Your task to perform on an android device: change the upload size in google photos Image 0: 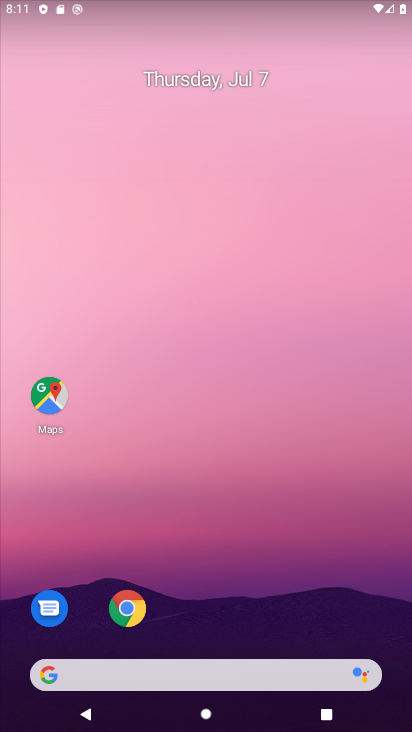
Step 0: drag from (171, 662) to (176, 90)
Your task to perform on an android device: change the upload size in google photos Image 1: 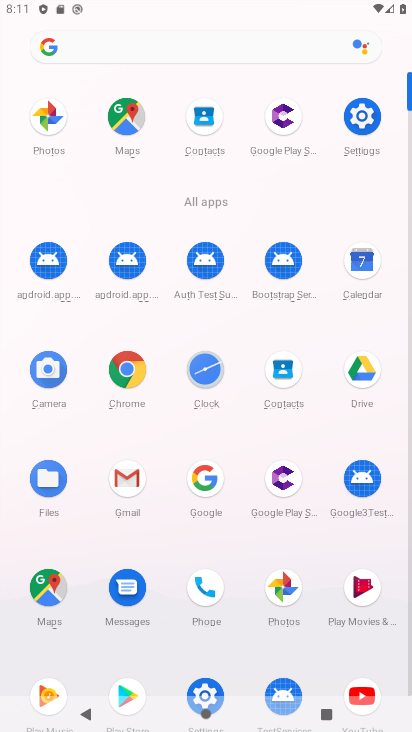
Step 1: click (50, 122)
Your task to perform on an android device: change the upload size in google photos Image 2: 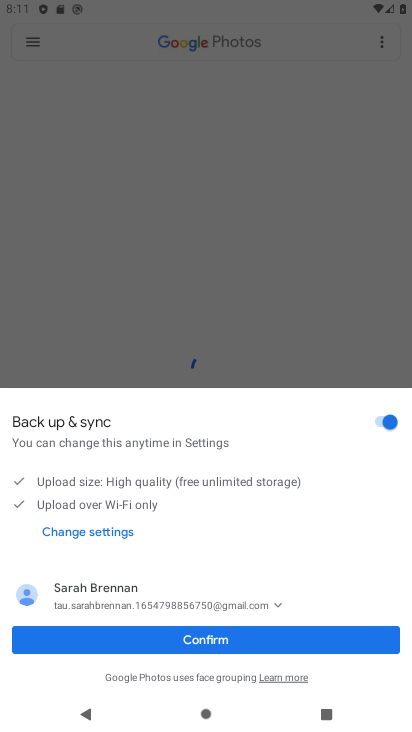
Step 2: click (210, 645)
Your task to perform on an android device: change the upload size in google photos Image 3: 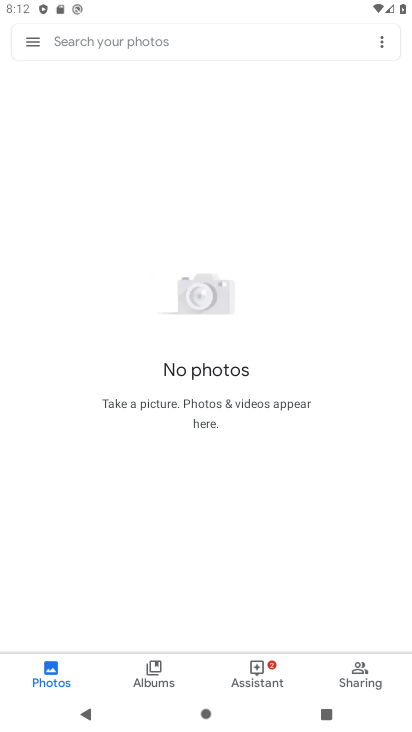
Step 3: press home button
Your task to perform on an android device: change the upload size in google photos Image 4: 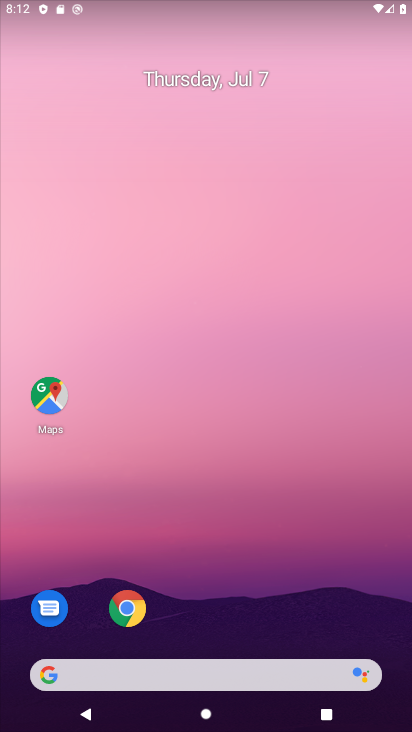
Step 4: drag from (174, 642) to (231, 179)
Your task to perform on an android device: change the upload size in google photos Image 5: 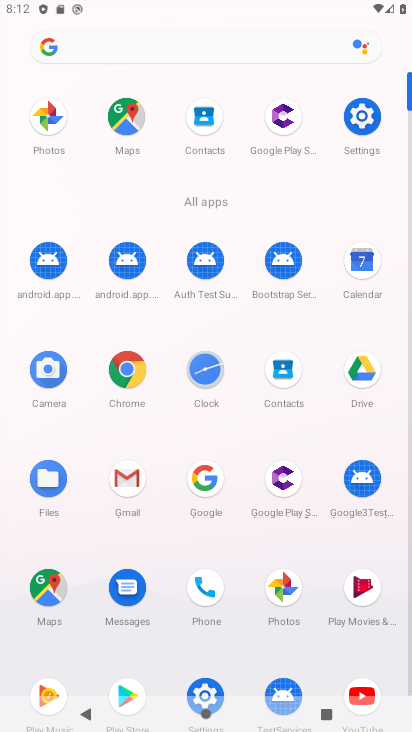
Step 5: click (273, 586)
Your task to perform on an android device: change the upload size in google photos Image 6: 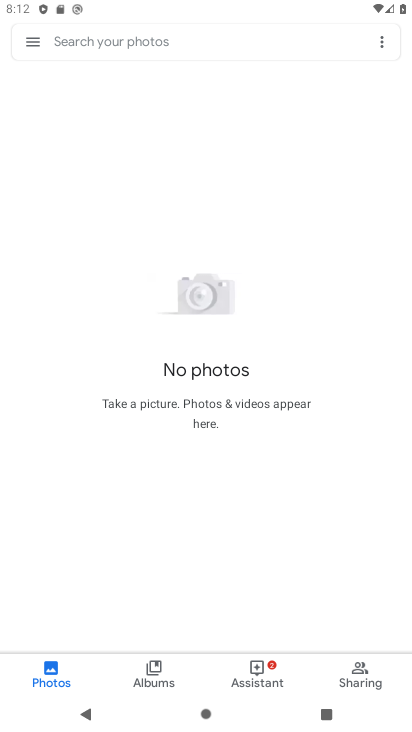
Step 6: click (40, 54)
Your task to perform on an android device: change the upload size in google photos Image 7: 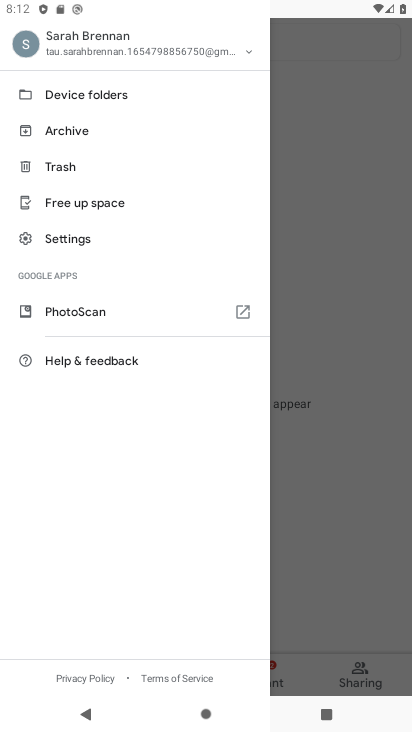
Step 7: click (47, 231)
Your task to perform on an android device: change the upload size in google photos Image 8: 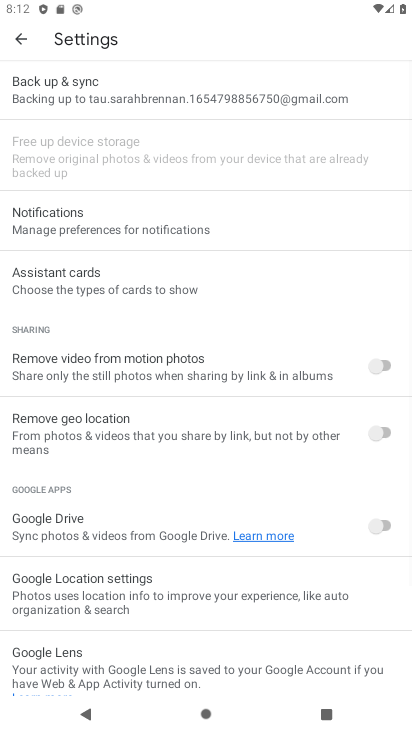
Step 8: click (66, 82)
Your task to perform on an android device: change the upload size in google photos Image 9: 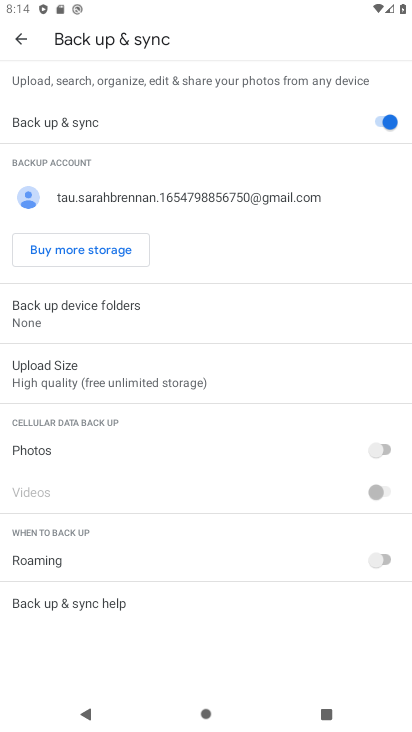
Step 9: click (89, 376)
Your task to perform on an android device: change the upload size in google photos Image 10: 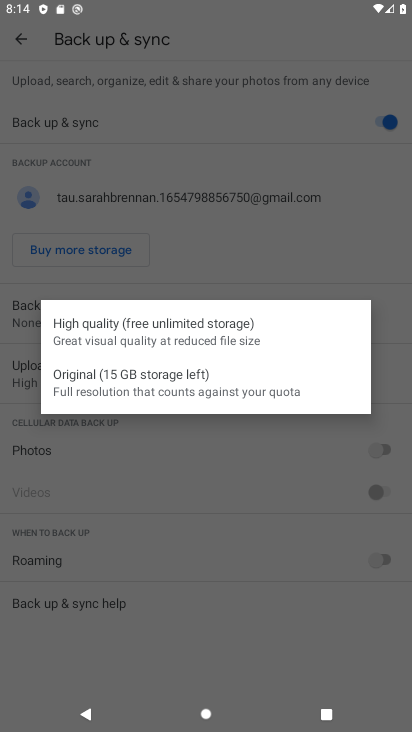
Step 10: click (84, 385)
Your task to perform on an android device: change the upload size in google photos Image 11: 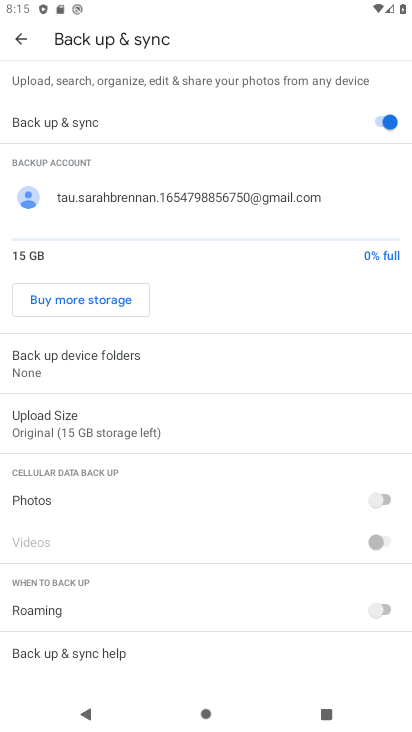
Step 11: task complete